Your task to perform on an android device: turn off location Image 0: 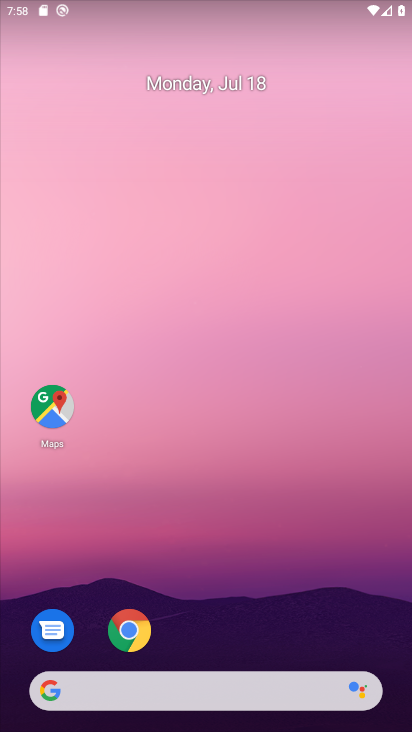
Step 0: drag from (202, 639) to (169, 221)
Your task to perform on an android device: turn off location Image 1: 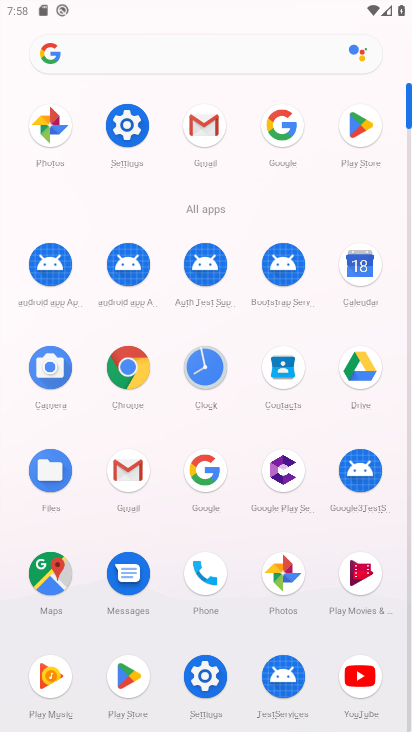
Step 1: click (109, 117)
Your task to perform on an android device: turn off location Image 2: 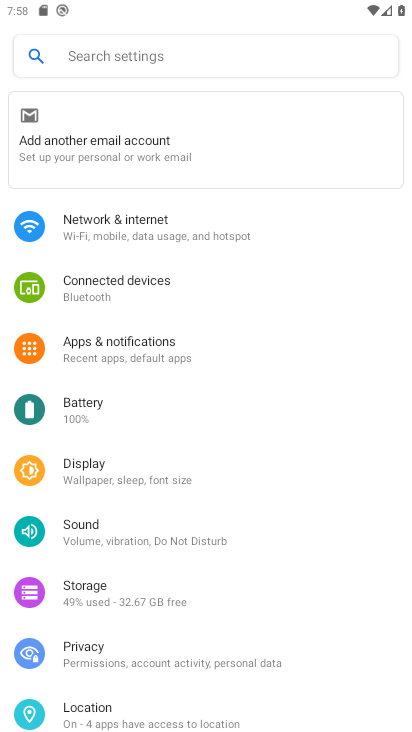
Step 2: drag from (128, 687) to (173, 469)
Your task to perform on an android device: turn off location Image 3: 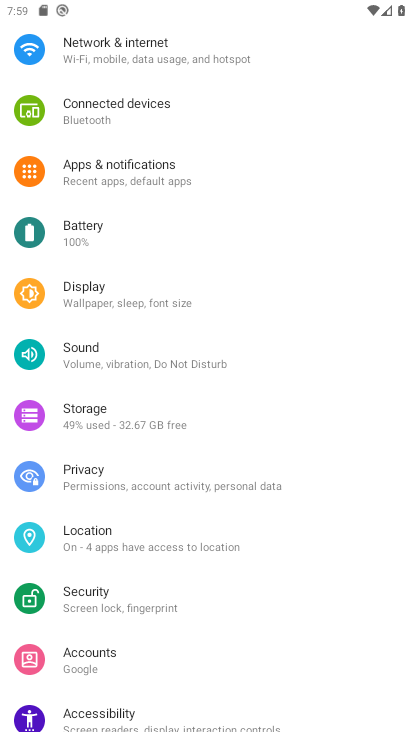
Step 3: click (141, 529)
Your task to perform on an android device: turn off location Image 4: 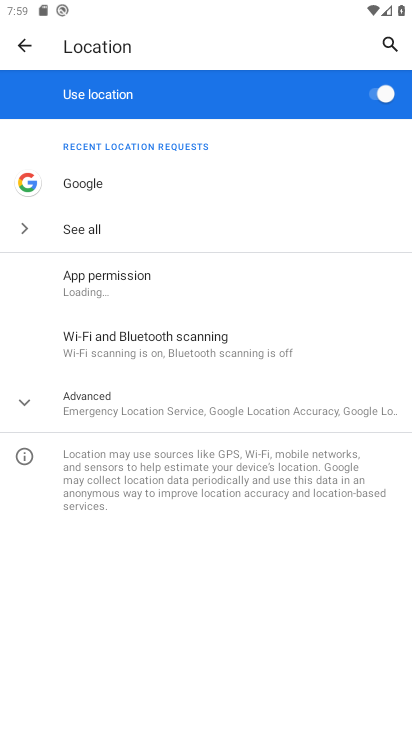
Step 4: click (386, 99)
Your task to perform on an android device: turn off location Image 5: 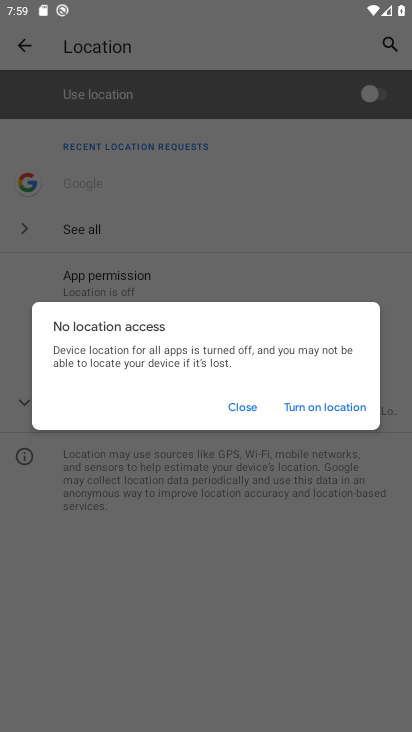
Step 5: task complete